Your task to perform on an android device: turn on location history Image 0: 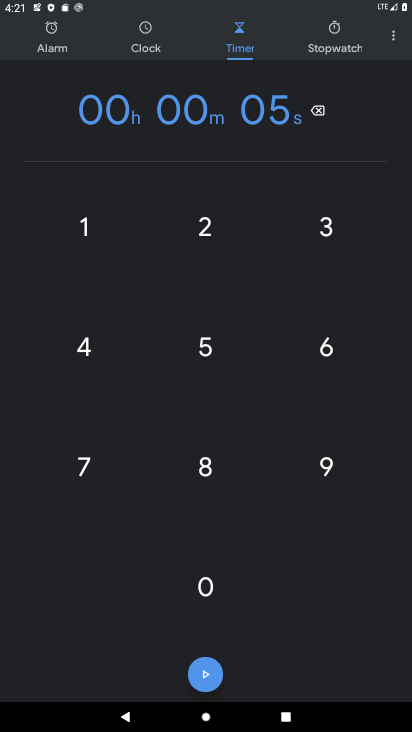
Step 0: press home button
Your task to perform on an android device: turn on location history Image 1: 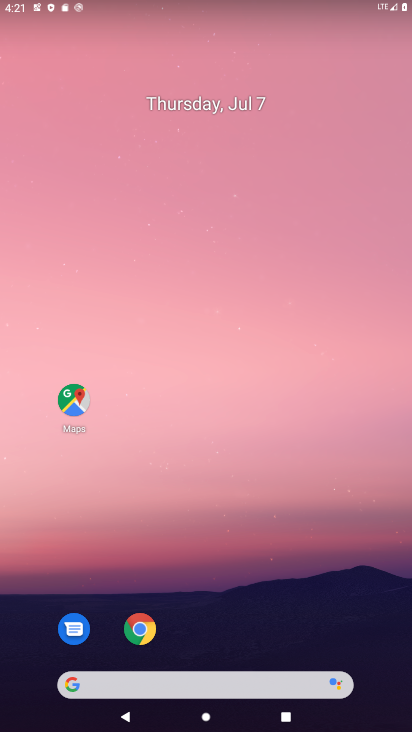
Step 1: drag from (304, 648) to (251, 209)
Your task to perform on an android device: turn on location history Image 2: 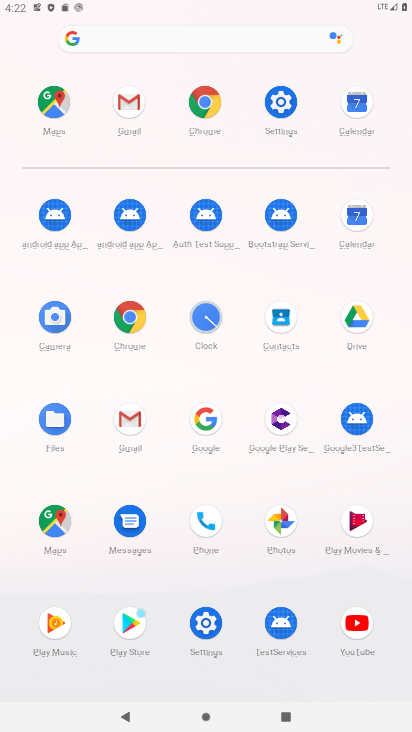
Step 2: click (202, 94)
Your task to perform on an android device: turn on location history Image 3: 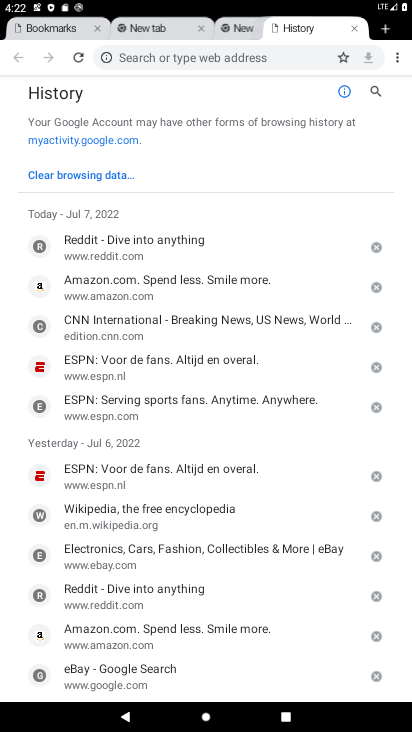
Step 3: press home button
Your task to perform on an android device: turn on location history Image 4: 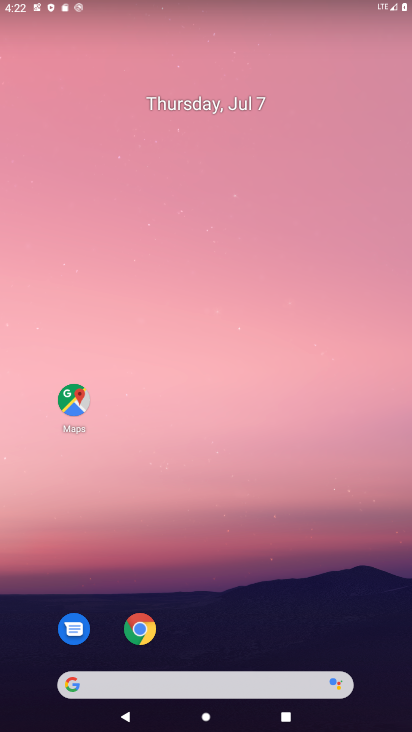
Step 4: drag from (219, 524) to (235, 167)
Your task to perform on an android device: turn on location history Image 5: 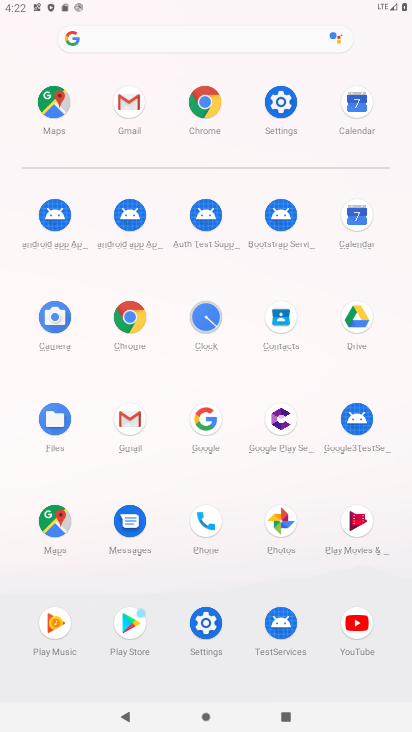
Step 5: click (282, 84)
Your task to perform on an android device: turn on location history Image 6: 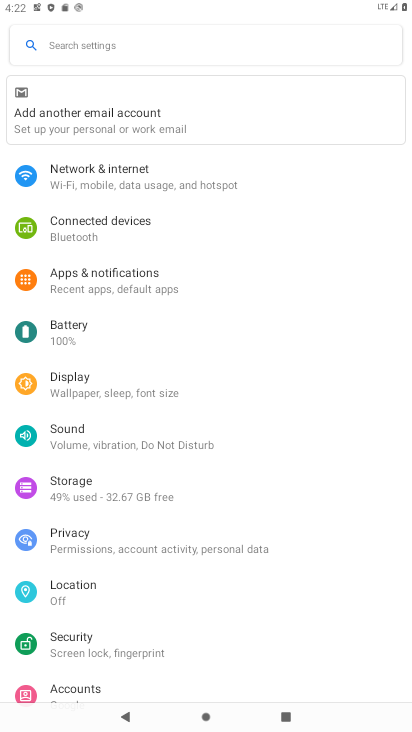
Step 6: click (97, 596)
Your task to perform on an android device: turn on location history Image 7: 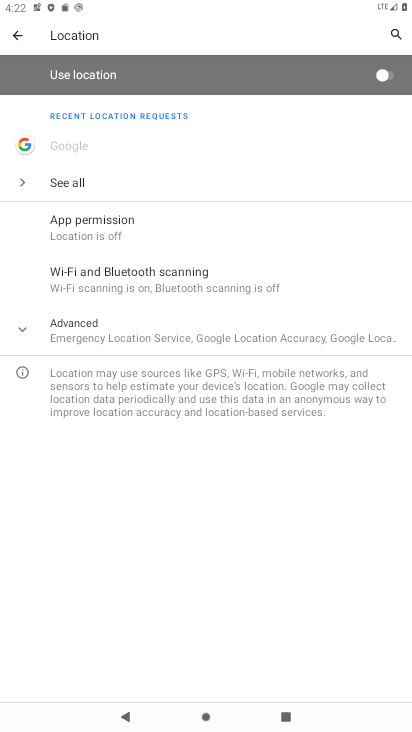
Step 7: click (380, 81)
Your task to perform on an android device: turn on location history Image 8: 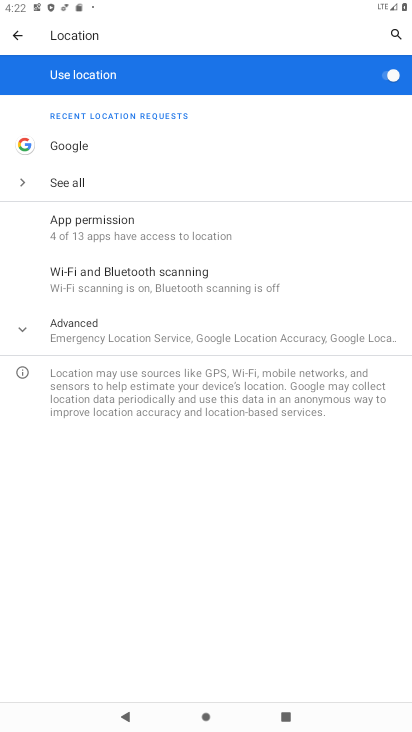
Step 8: task complete